Your task to perform on an android device: turn off javascript in the chrome app Image 0: 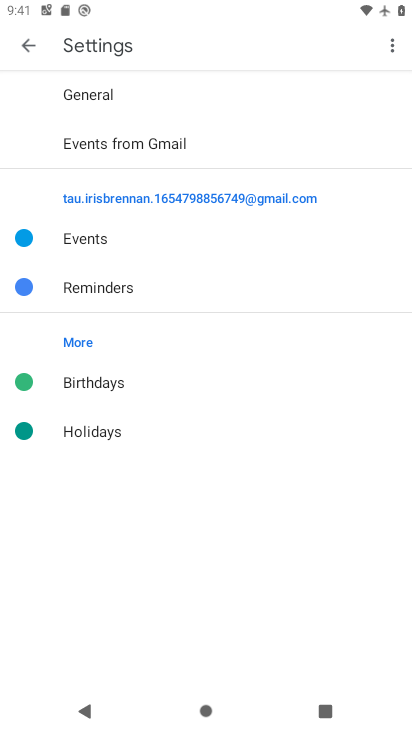
Step 0: press home button
Your task to perform on an android device: turn off javascript in the chrome app Image 1: 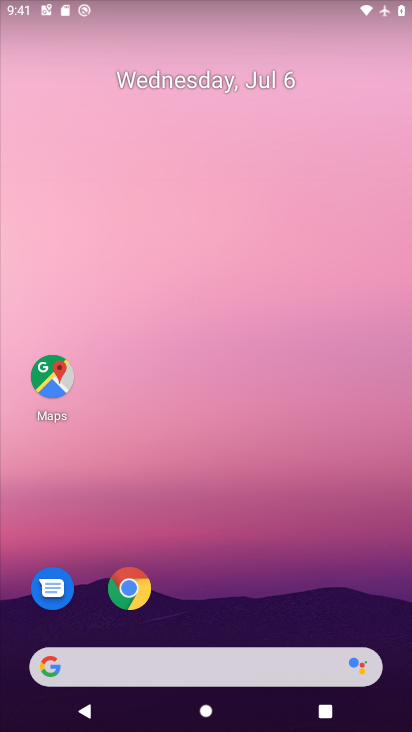
Step 1: click (124, 587)
Your task to perform on an android device: turn off javascript in the chrome app Image 2: 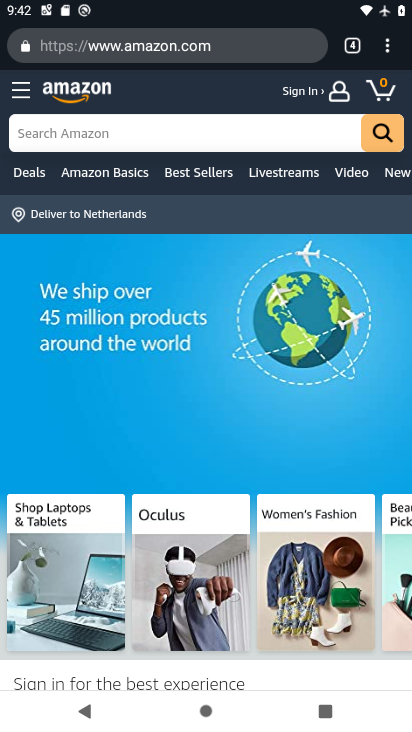
Step 2: click (390, 60)
Your task to perform on an android device: turn off javascript in the chrome app Image 3: 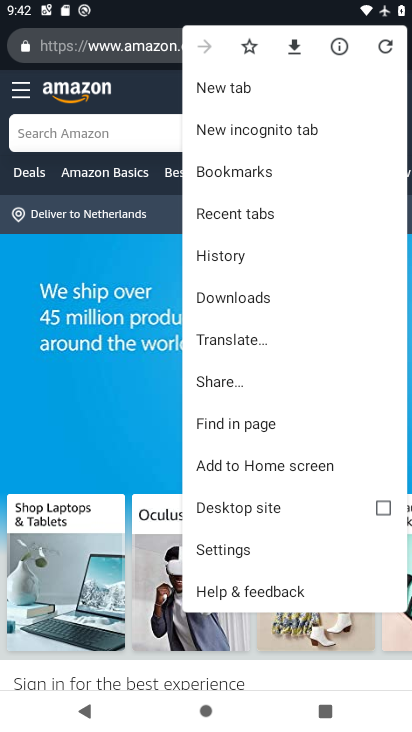
Step 3: click (255, 551)
Your task to perform on an android device: turn off javascript in the chrome app Image 4: 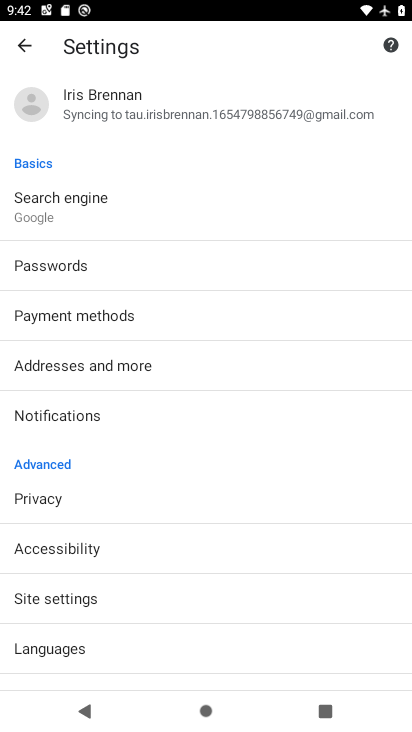
Step 4: click (79, 608)
Your task to perform on an android device: turn off javascript in the chrome app Image 5: 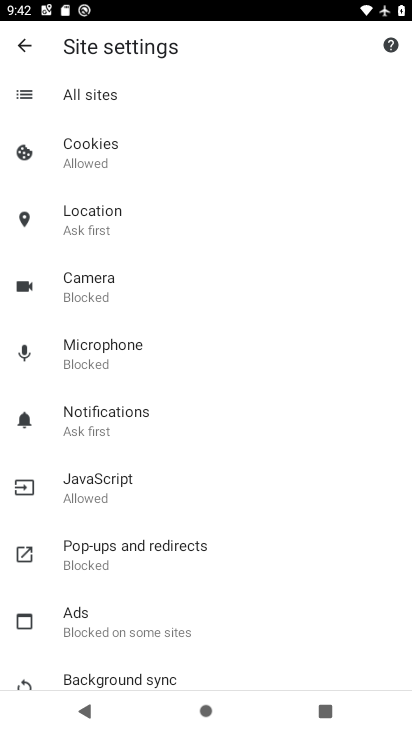
Step 5: click (98, 491)
Your task to perform on an android device: turn off javascript in the chrome app Image 6: 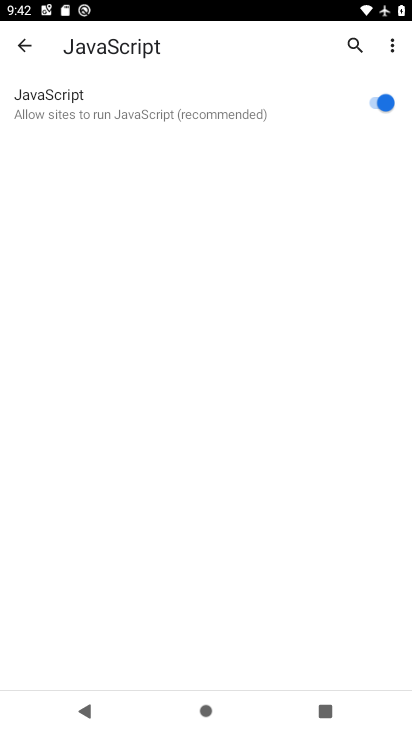
Step 6: click (375, 93)
Your task to perform on an android device: turn off javascript in the chrome app Image 7: 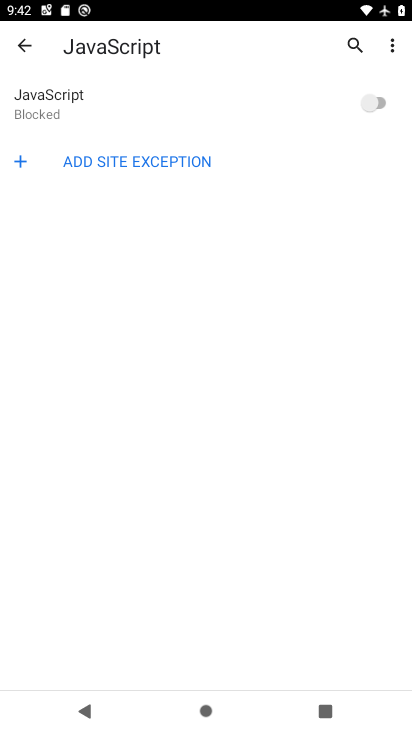
Step 7: task complete